Your task to perform on an android device: Add macbook pro 15 inch to the cart on ebay.com, then select checkout. Image 0: 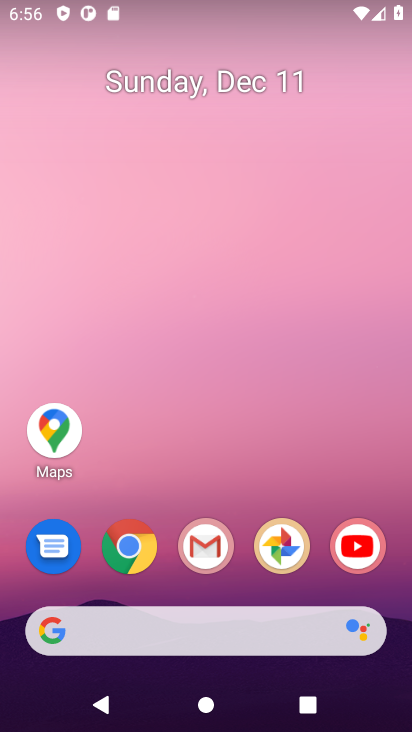
Step 0: click (130, 548)
Your task to perform on an android device: Add macbook pro 15 inch to the cart on ebay.com, then select checkout. Image 1: 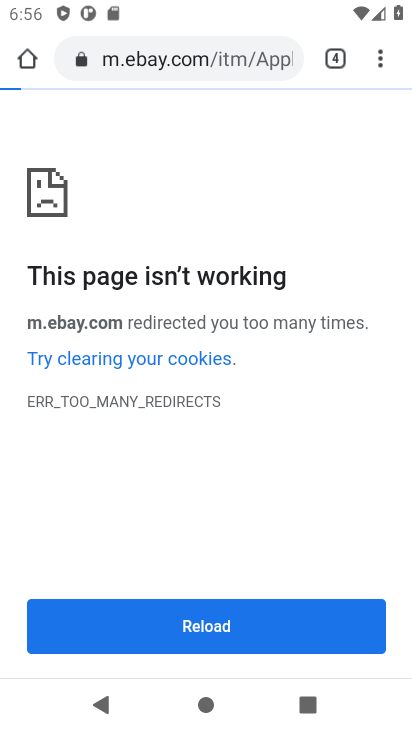
Step 1: press back button
Your task to perform on an android device: Add macbook pro 15 inch to the cart on ebay.com, then select checkout. Image 2: 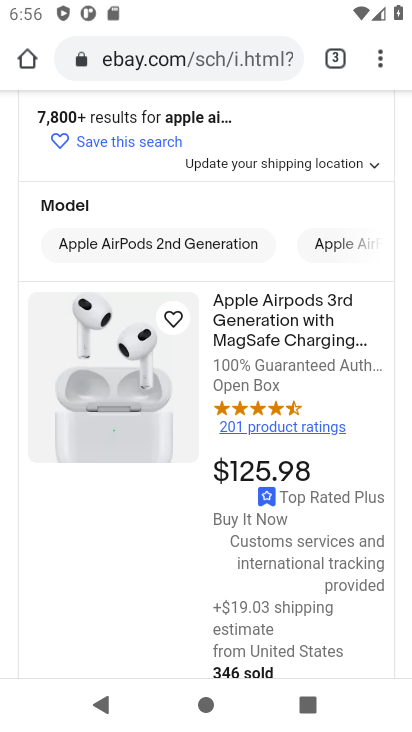
Step 2: drag from (201, 155) to (194, 533)
Your task to perform on an android device: Add macbook pro 15 inch to the cart on ebay.com, then select checkout. Image 3: 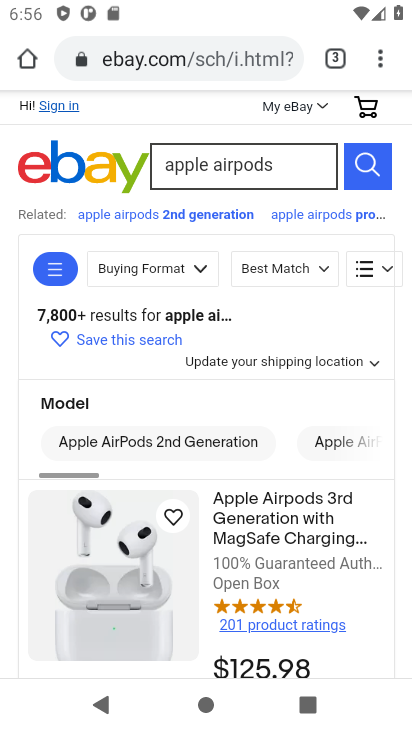
Step 3: click (273, 173)
Your task to perform on an android device: Add macbook pro 15 inch to the cart on ebay.com, then select checkout. Image 4: 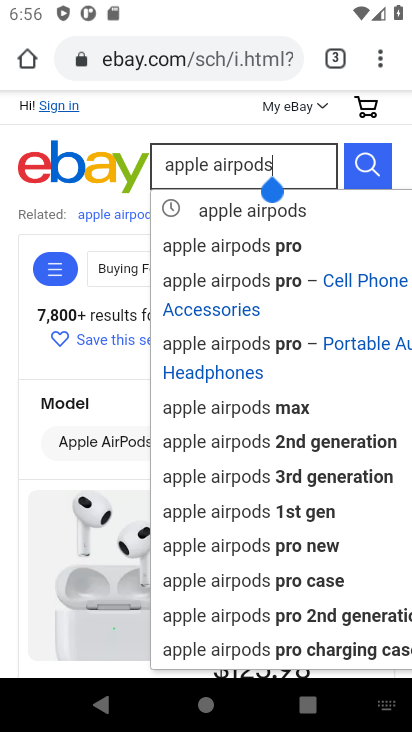
Step 4: drag from (274, 162) to (168, 157)
Your task to perform on an android device: Add macbook pro 15 inch to the cart on ebay.com, then select checkout. Image 5: 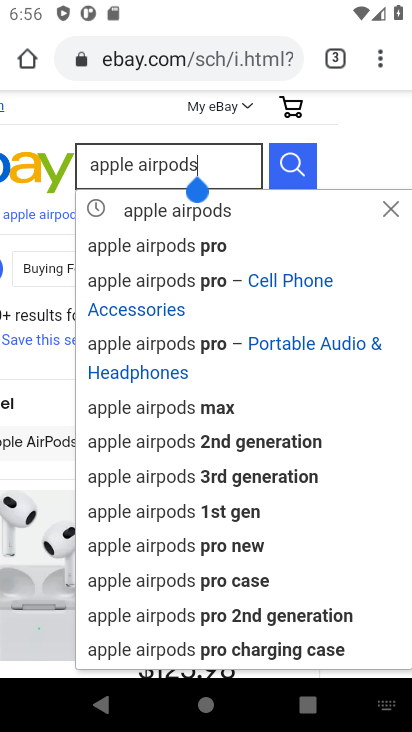
Step 5: drag from (91, 161) to (193, 174)
Your task to perform on an android device: Add macbook pro 15 inch to the cart on ebay.com, then select checkout. Image 6: 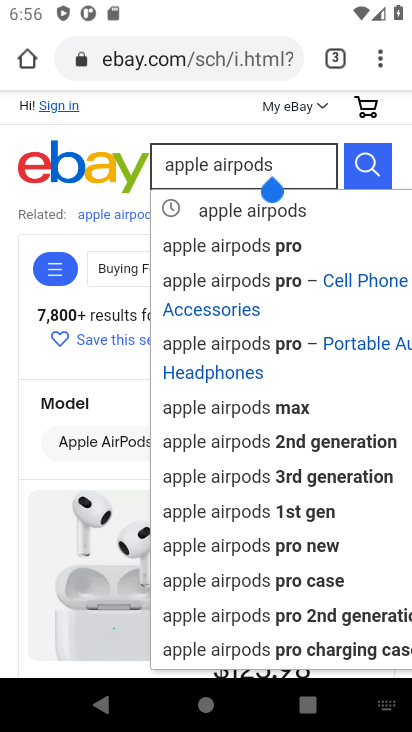
Step 6: drag from (165, 158) to (275, 174)
Your task to perform on an android device: Add macbook pro 15 inch to the cart on ebay.com, then select checkout. Image 7: 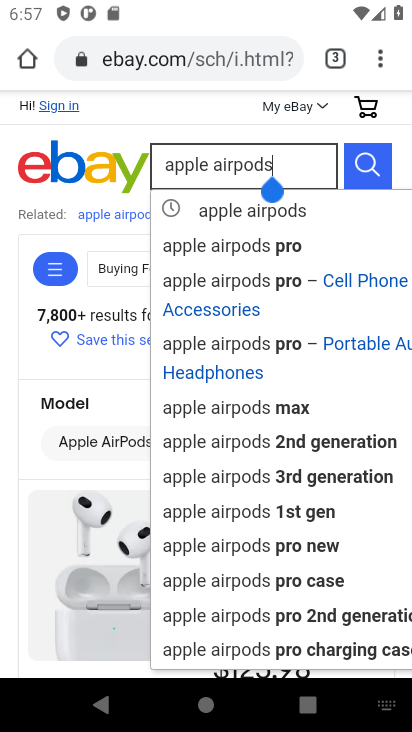
Step 7: click (263, 168)
Your task to perform on an android device: Add macbook pro 15 inch to the cart on ebay.com, then select checkout. Image 8: 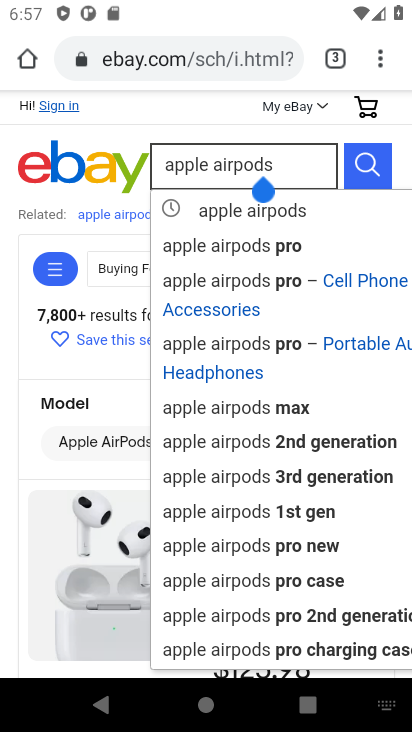
Step 8: drag from (165, 161) to (252, 173)
Your task to perform on an android device: Add macbook pro 15 inch to the cart on ebay.com, then select checkout. Image 9: 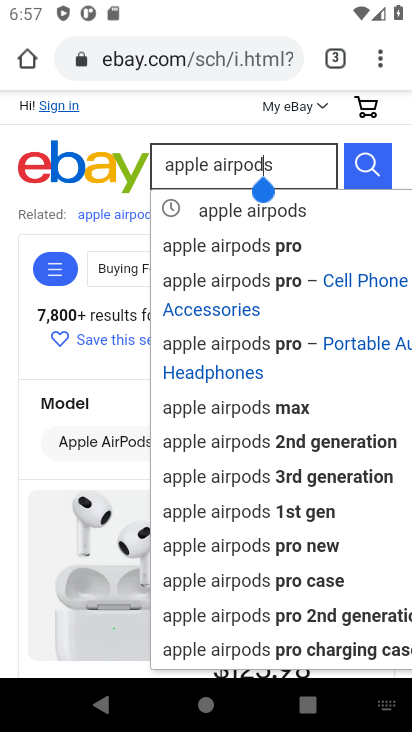
Step 9: click (276, 168)
Your task to perform on an android device: Add macbook pro 15 inch to the cart on ebay.com, then select checkout. Image 10: 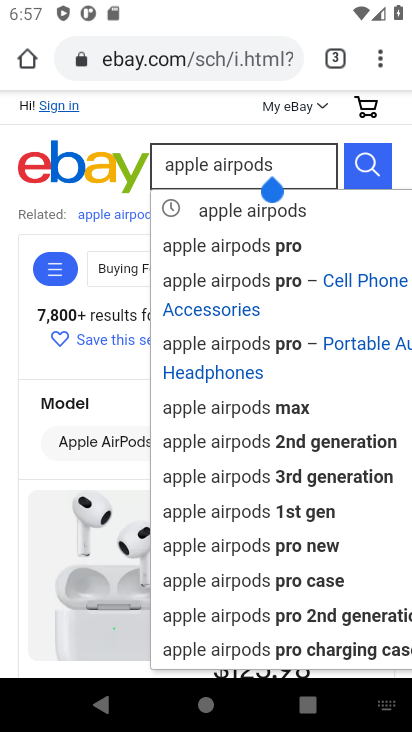
Step 10: drag from (276, 168) to (166, 171)
Your task to perform on an android device: Add macbook pro 15 inch to the cart on ebay.com, then select checkout. Image 11: 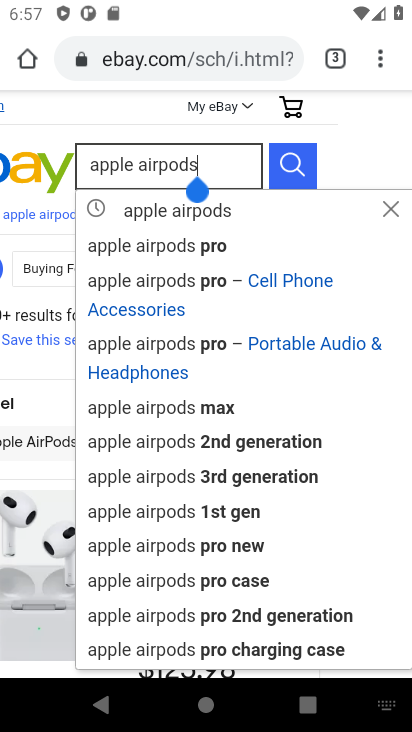
Step 11: click (91, 163)
Your task to perform on an android device: Add macbook pro 15 inch to the cart on ebay.com, then select checkout. Image 12: 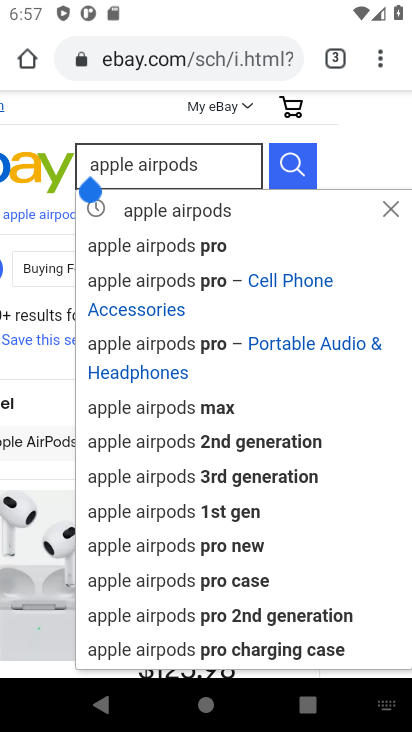
Step 12: click (104, 168)
Your task to perform on an android device: Add macbook pro 15 inch to the cart on ebay.com, then select checkout. Image 13: 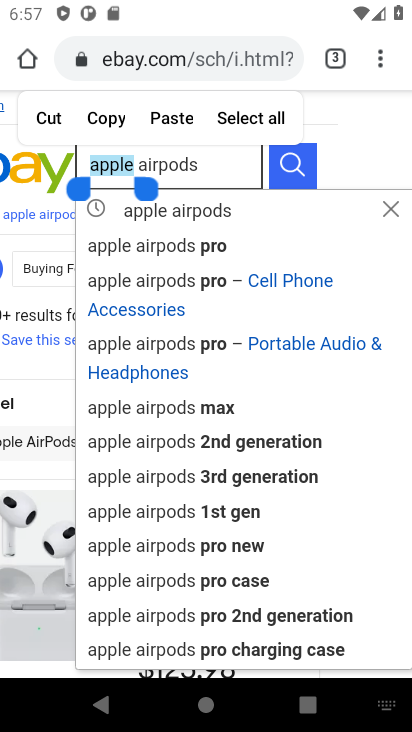
Step 13: drag from (143, 182) to (207, 181)
Your task to perform on an android device: Add macbook pro 15 inch to the cart on ebay.com, then select checkout. Image 14: 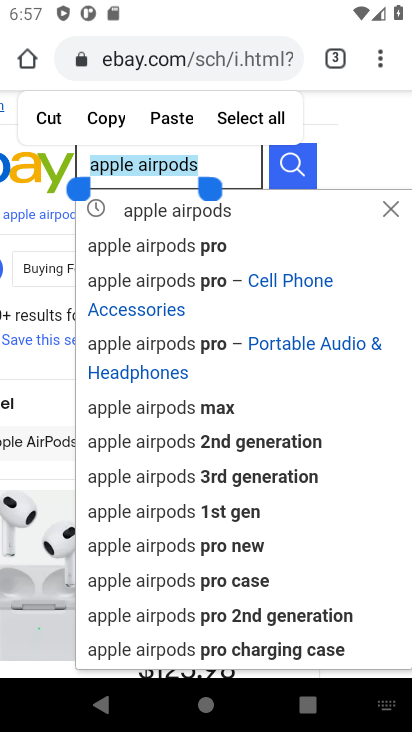
Step 14: type "macbook pro 15 inch "
Your task to perform on an android device: Add macbook pro 15 inch to the cart on ebay.com, then select checkout. Image 15: 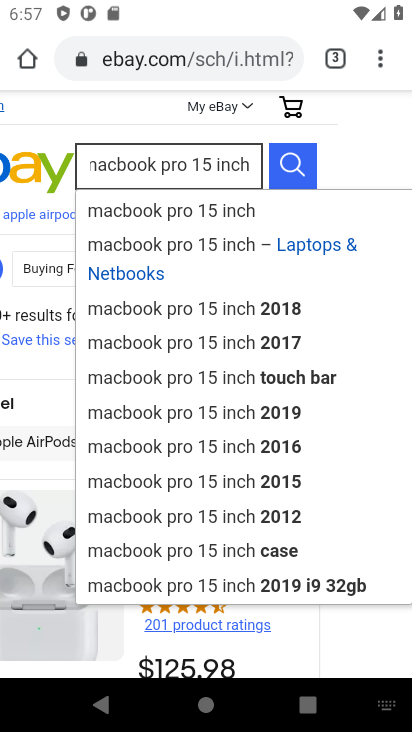
Step 15: click (284, 167)
Your task to perform on an android device: Add macbook pro 15 inch to the cart on ebay.com, then select checkout. Image 16: 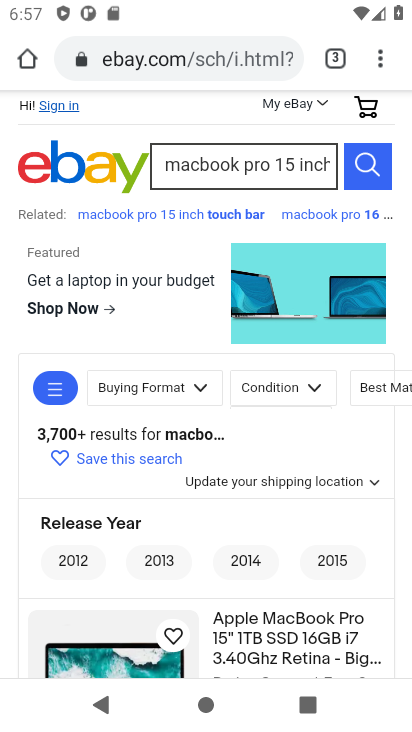
Step 16: drag from (256, 531) to (271, 261)
Your task to perform on an android device: Add macbook pro 15 inch to the cart on ebay.com, then select checkout. Image 17: 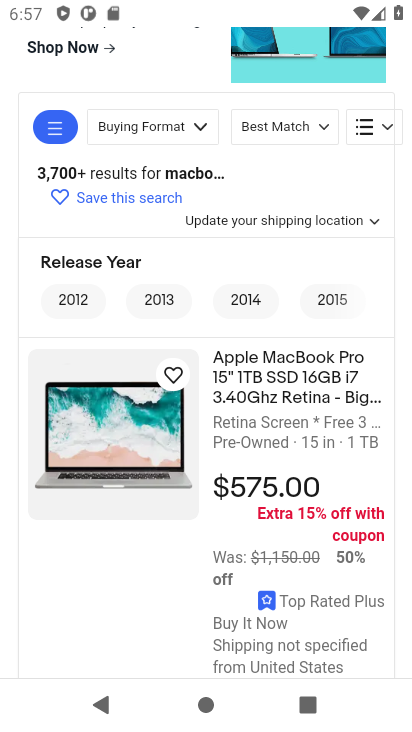
Step 17: click (263, 393)
Your task to perform on an android device: Add macbook pro 15 inch to the cart on ebay.com, then select checkout. Image 18: 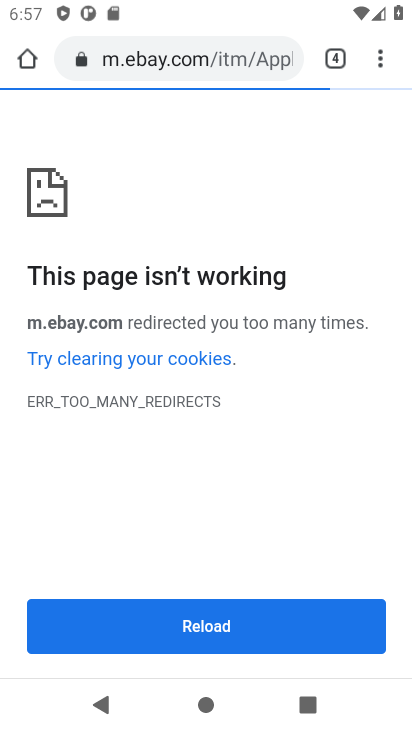
Step 18: task complete